Your task to perform on an android device: Go to wifi settings Image 0: 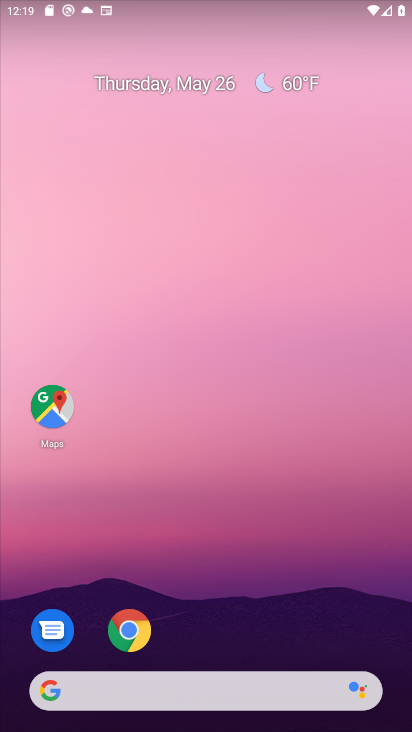
Step 0: drag from (351, 580) to (274, 187)
Your task to perform on an android device: Go to wifi settings Image 1: 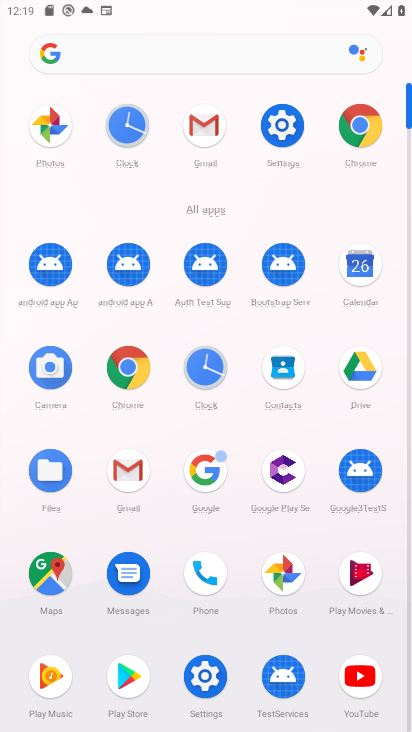
Step 1: click (277, 141)
Your task to perform on an android device: Go to wifi settings Image 2: 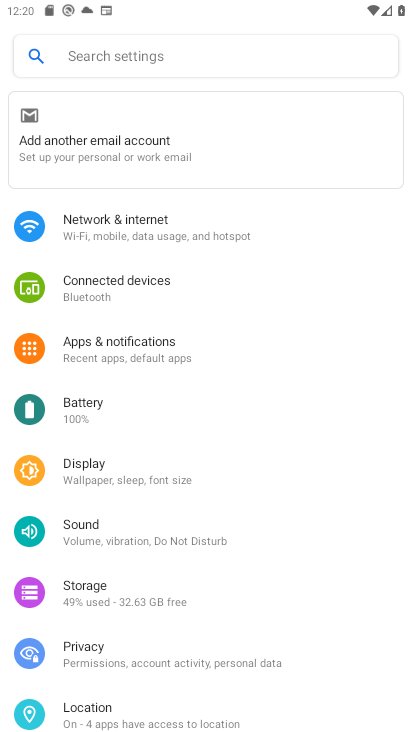
Step 2: click (123, 235)
Your task to perform on an android device: Go to wifi settings Image 3: 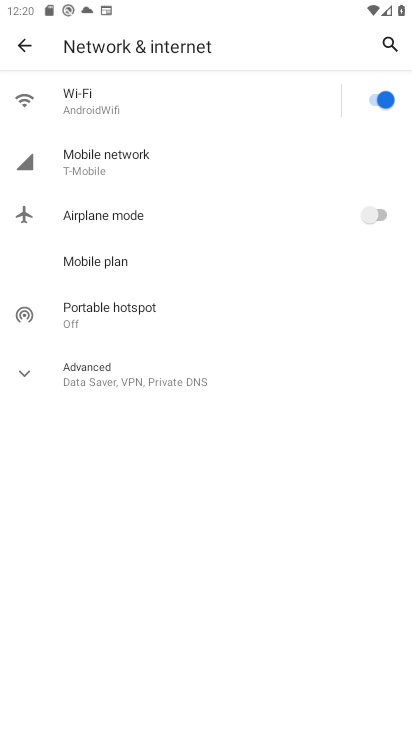
Step 3: click (149, 110)
Your task to perform on an android device: Go to wifi settings Image 4: 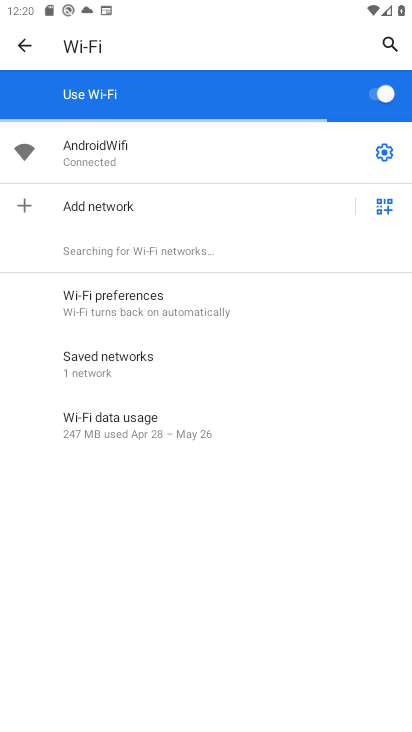
Step 4: task complete